Your task to perform on an android device: find photos in the google photos app Image 0: 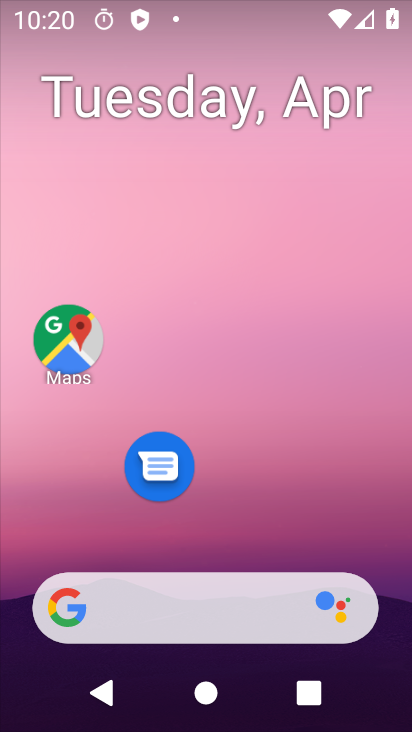
Step 0: drag from (349, 527) to (257, 76)
Your task to perform on an android device: find photos in the google photos app Image 1: 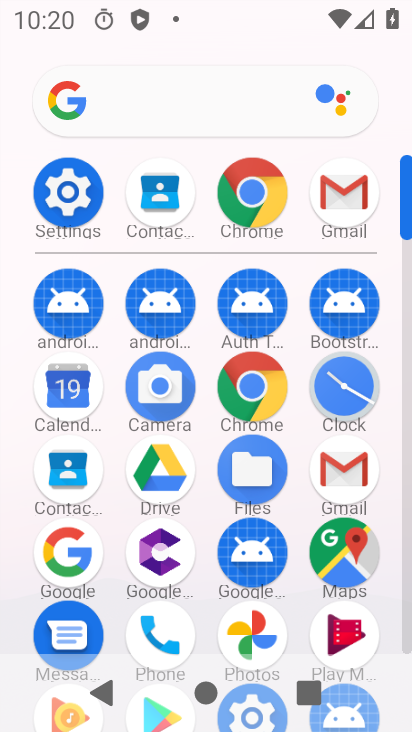
Step 1: click (250, 635)
Your task to perform on an android device: find photos in the google photos app Image 2: 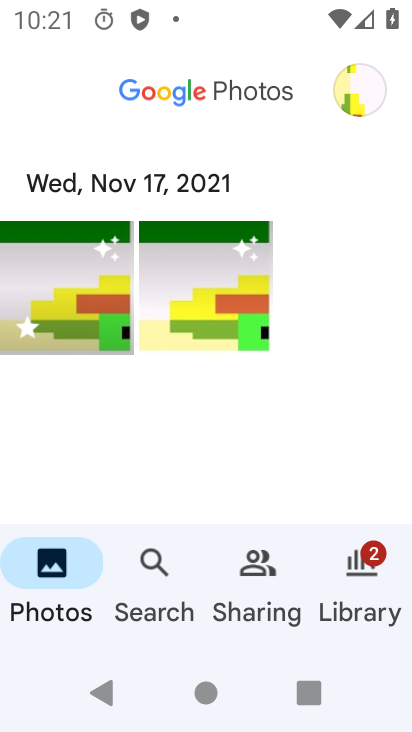
Step 2: click (380, 544)
Your task to perform on an android device: find photos in the google photos app Image 3: 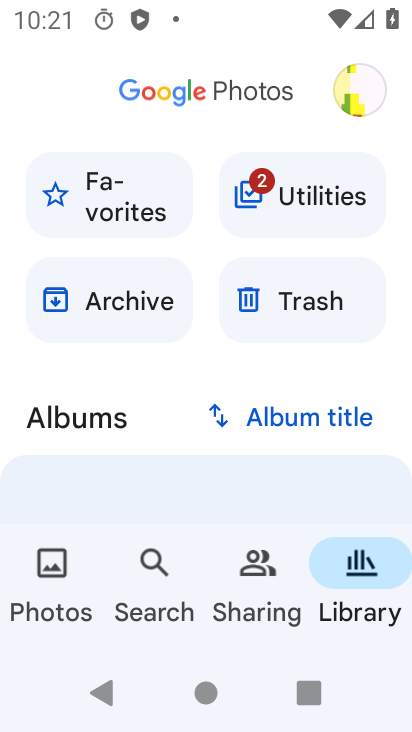
Step 3: click (151, 295)
Your task to perform on an android device: find photos in the google photos app Image 4: 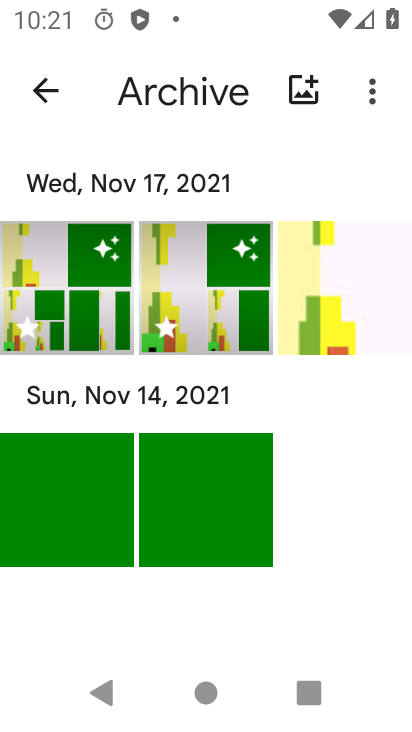
Step 4: task complete